Your task to perform on an android device: check android version Image 0: 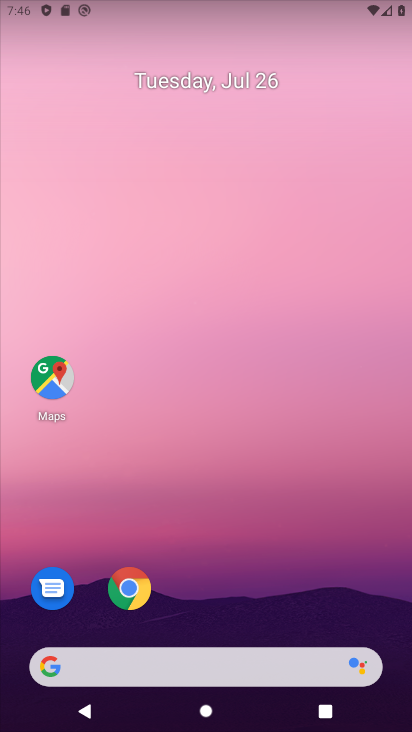
Step 0: drag from (164, 594) to (209, 103)
Your task to perform on an android device: check android version Image 1: 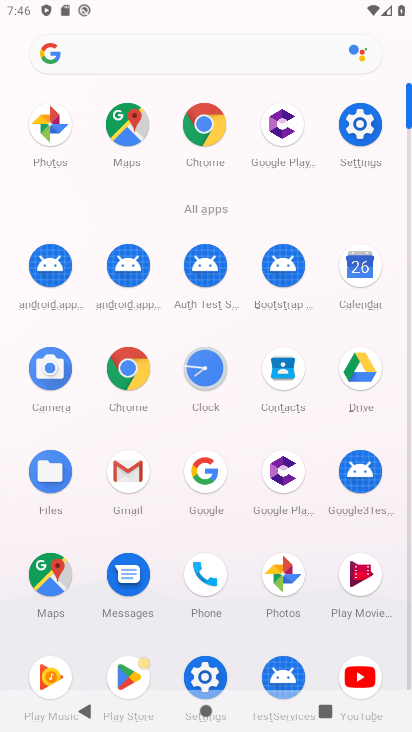
Step 1: click (195, 667)
Your task to perform on an android device: check android version Image 2: 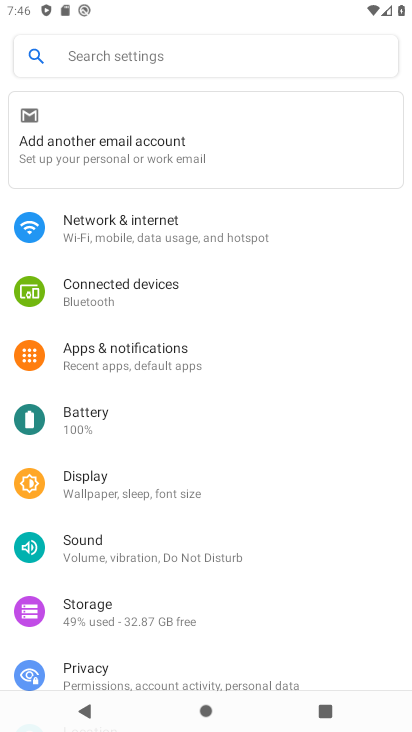
Step 2: drag from (121, 576) to (212, 135)
Your task to perform on an android device: check android version Image 3: 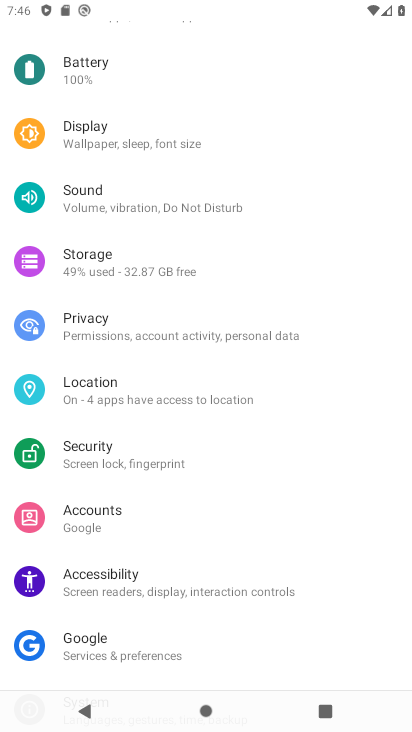
Step 3: drag from (118, 561) to (132, 158)
Your task to perform on an android device: check android version Image 4: 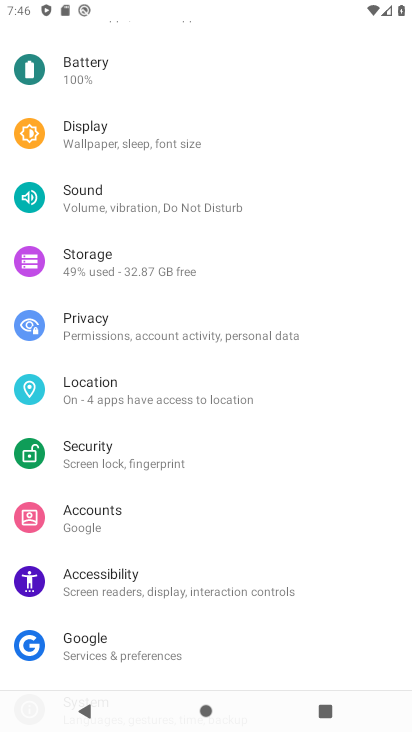
Step 4: drag from (129, 543) to (184, 241)
Your task to perform on an android device: check android version Image 5: 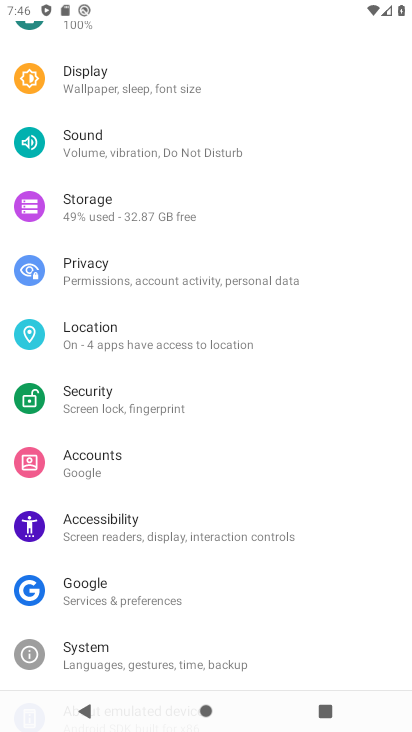
Step 5: drag from (155, 408) to (201, 138)
Your task to perform on an android device: check android version Image 6: 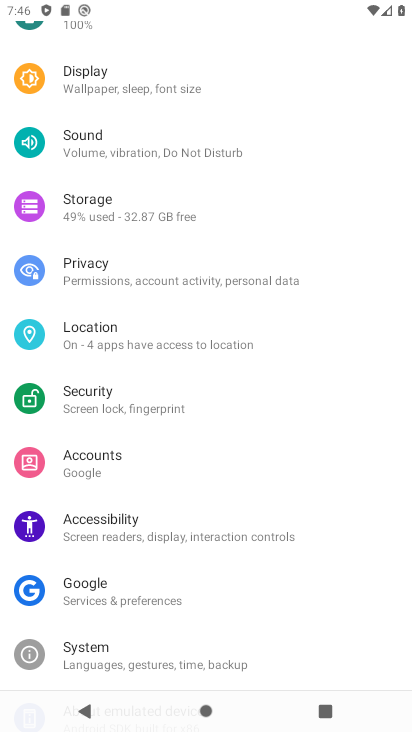
Step 6: drag from (132, 550) to (142, 238)
Your task to perform on an android device: check android version Image 7: 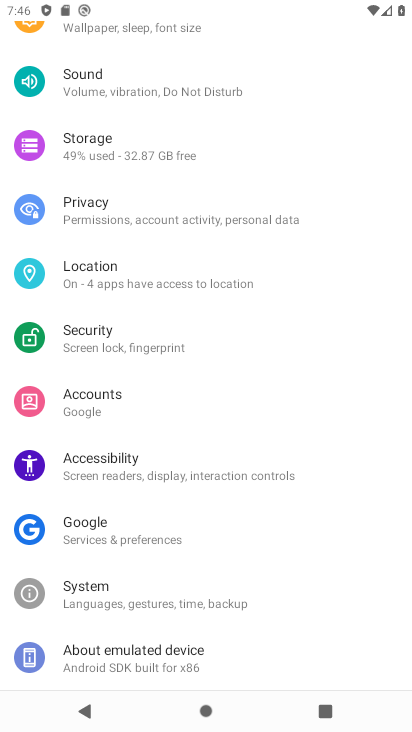
Step 7: click (89, 658)
Your task to perform on an android device: check android version Image 8: 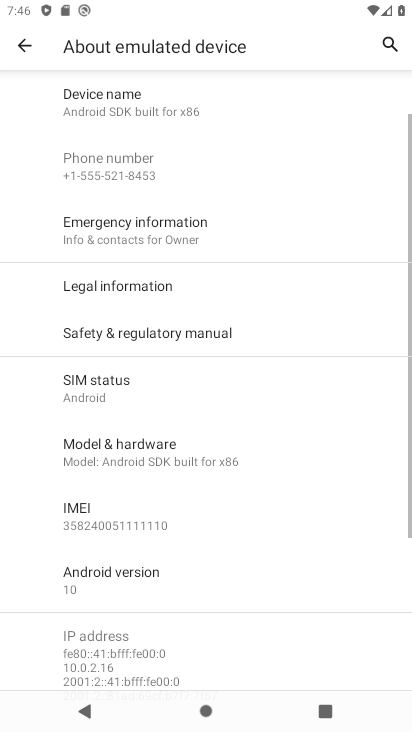
Step 8: click (81, 574)
Your task to perform on an android device: check android version Image 9: 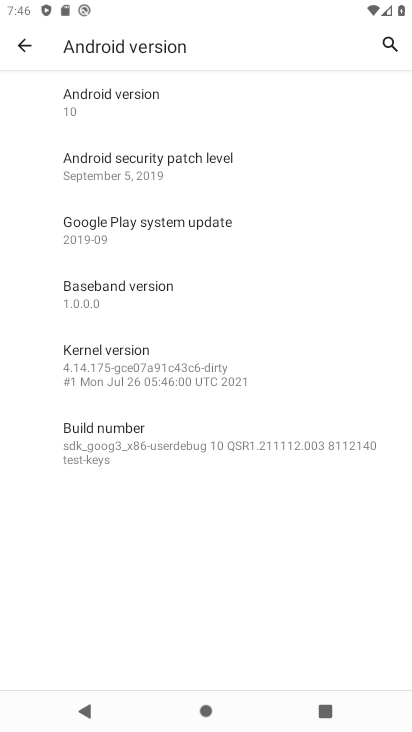
Step 9: task complete